Your task to perform on an android device: When is my next meeting? Image 0: 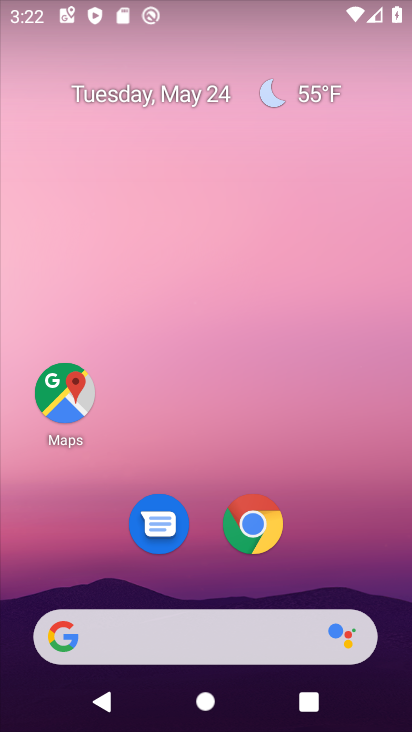
Step 0: drag from (230, 457) to (195, 0)
Your task to perform on an android device: When is my next meeting? Image 1: 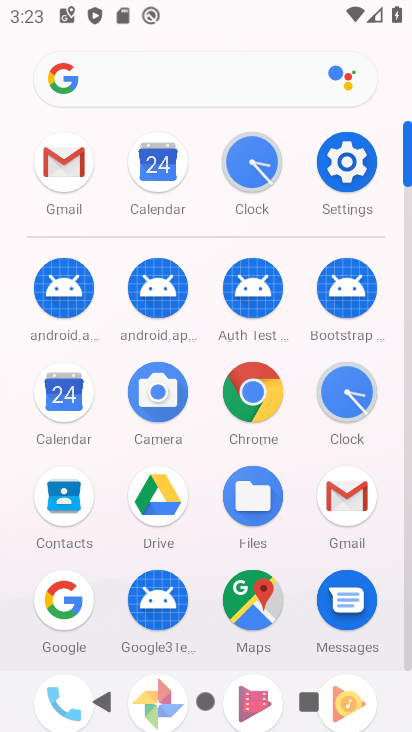
Step 1: click (148, 167)
Your task to perform on an android device: When is my next meeting? Image 2: 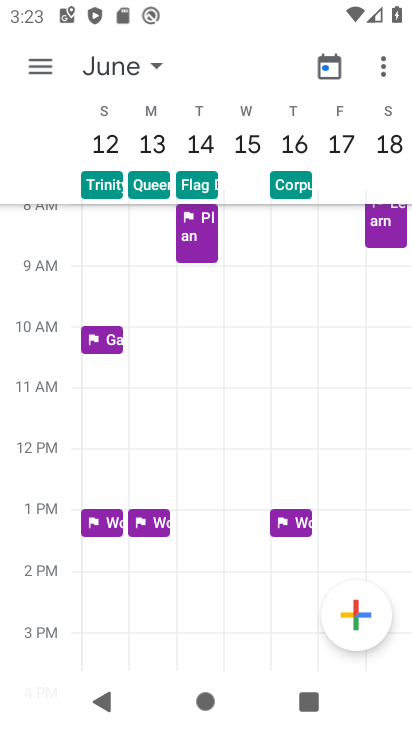
Step 2: drag from (136, 298) to (410, 368)
Your task to perform on an android device: When is my next meeting? Image 3: 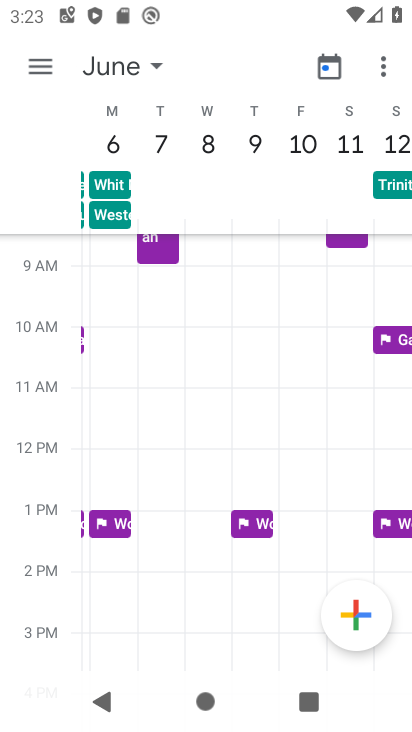
Step 3: drag from (112, 342) to (404, 387)
Your task to perform on an android device: When is my next meeting? Image 4: 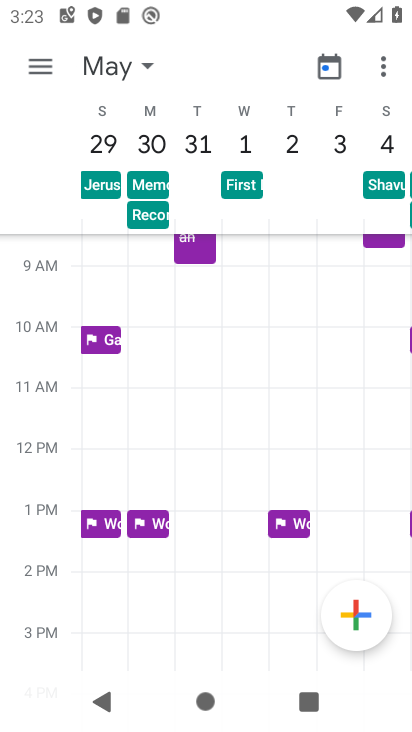
Step 4: drag from (90, 380) to (401, 379)
Your task to perform on an android device: When is my next meeting? Image 5: 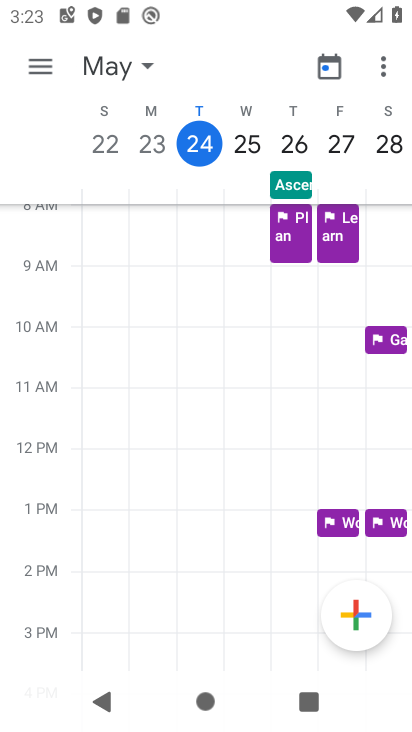
Step 5: click (162, 142)
Your task to perform on an android device: When is my next meeting? Image 6: 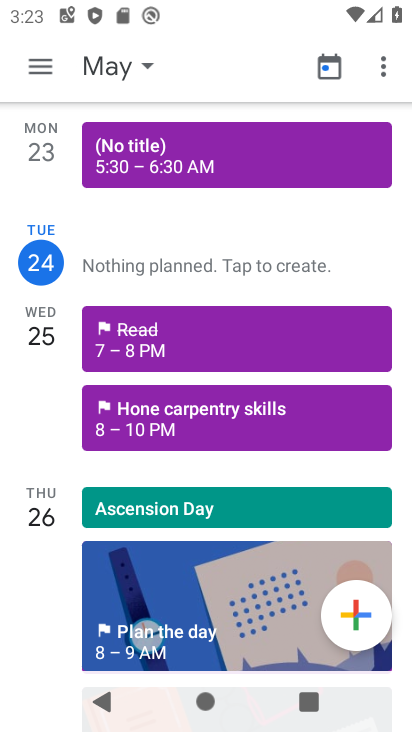
Step 6: task complete